Your task to perform on an android device: Clear the shopping cart on newegg.com. Add "logitech g pro" to the cart on newegg.com Image 0: 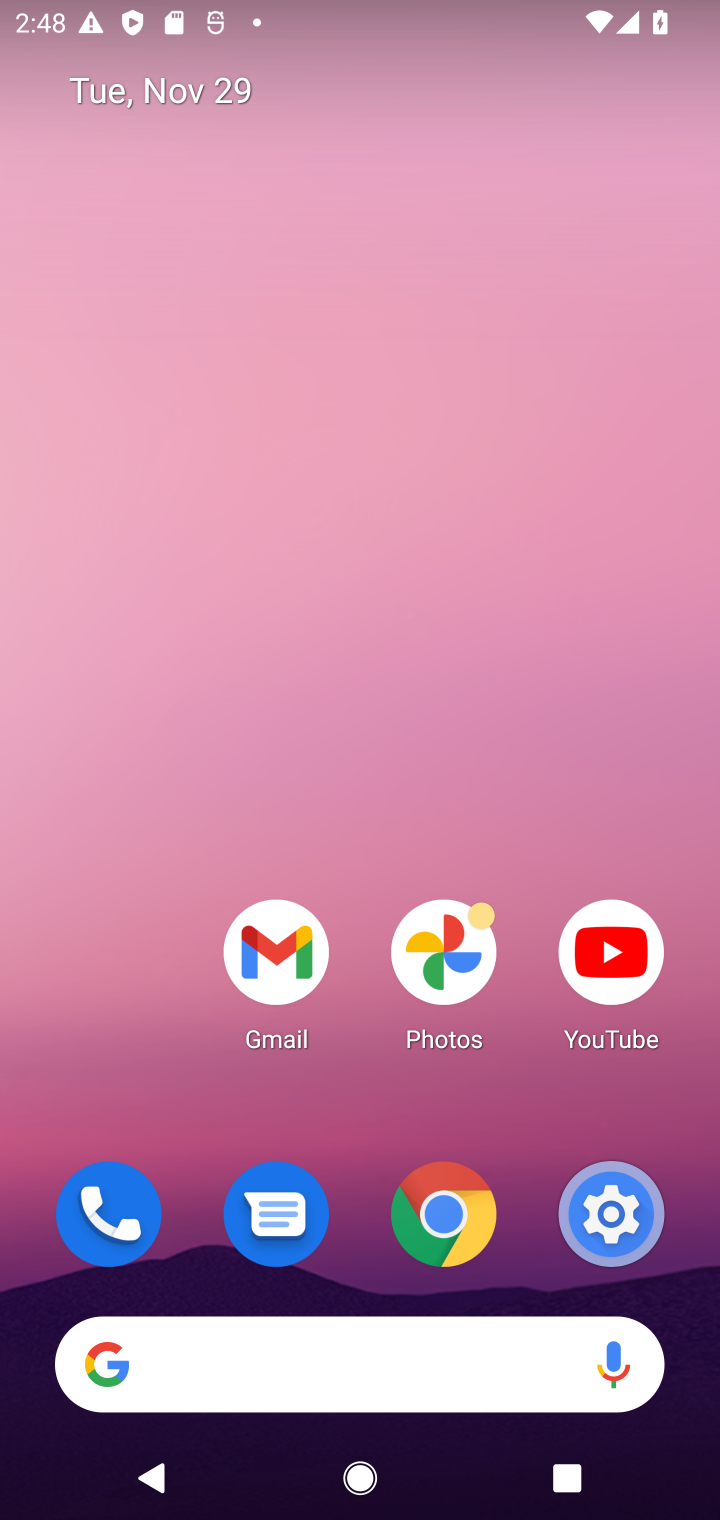
Step 0: click (462, 1349)
Your task to perform on an android device: Clear the shopping cart on newegg.com. Add "logitech g pro" to the cart on newegg.com Image 1: 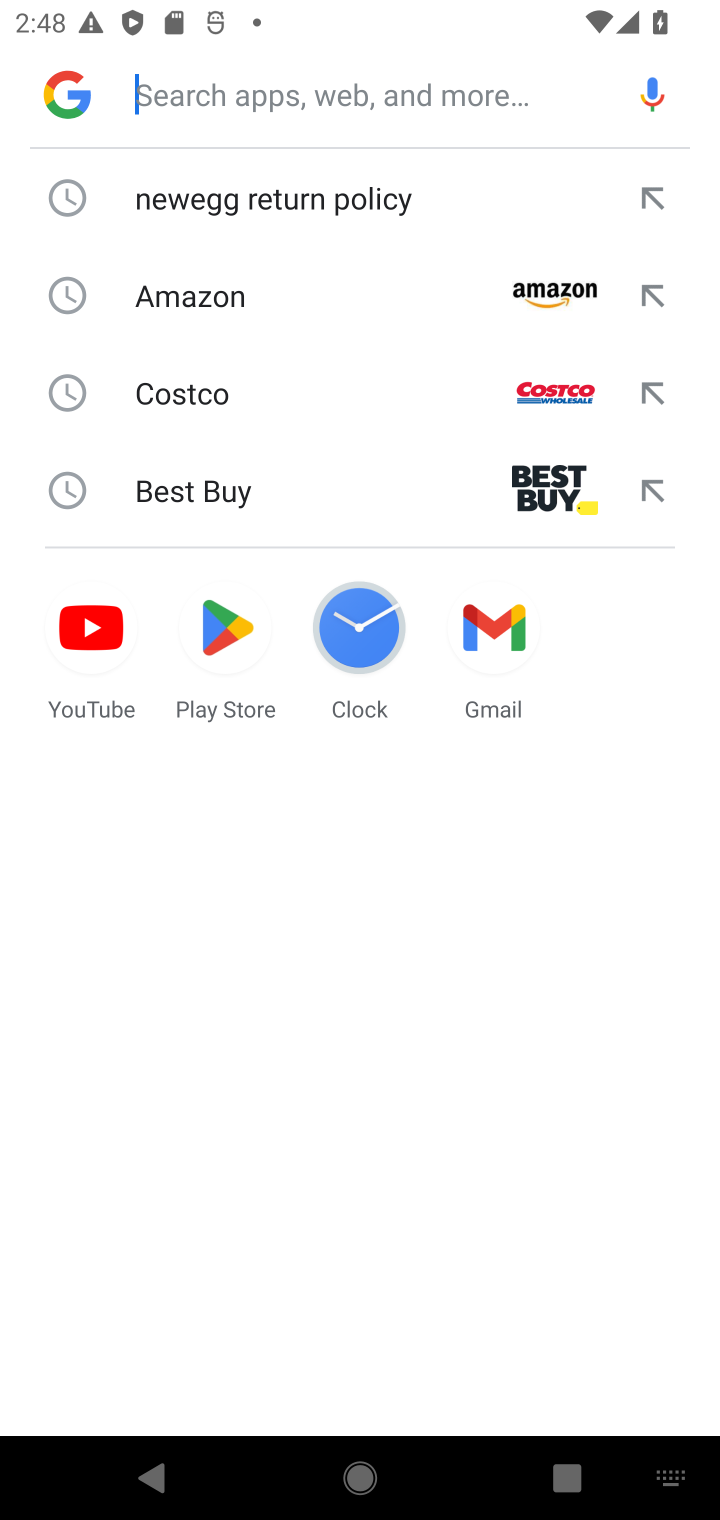
Step 1: type "NEWEGG."
Your task to perform on an android device: Clear the shopping cart on newegg.com. Add "logitech g pro" to the cart on newegg.com Image 2: 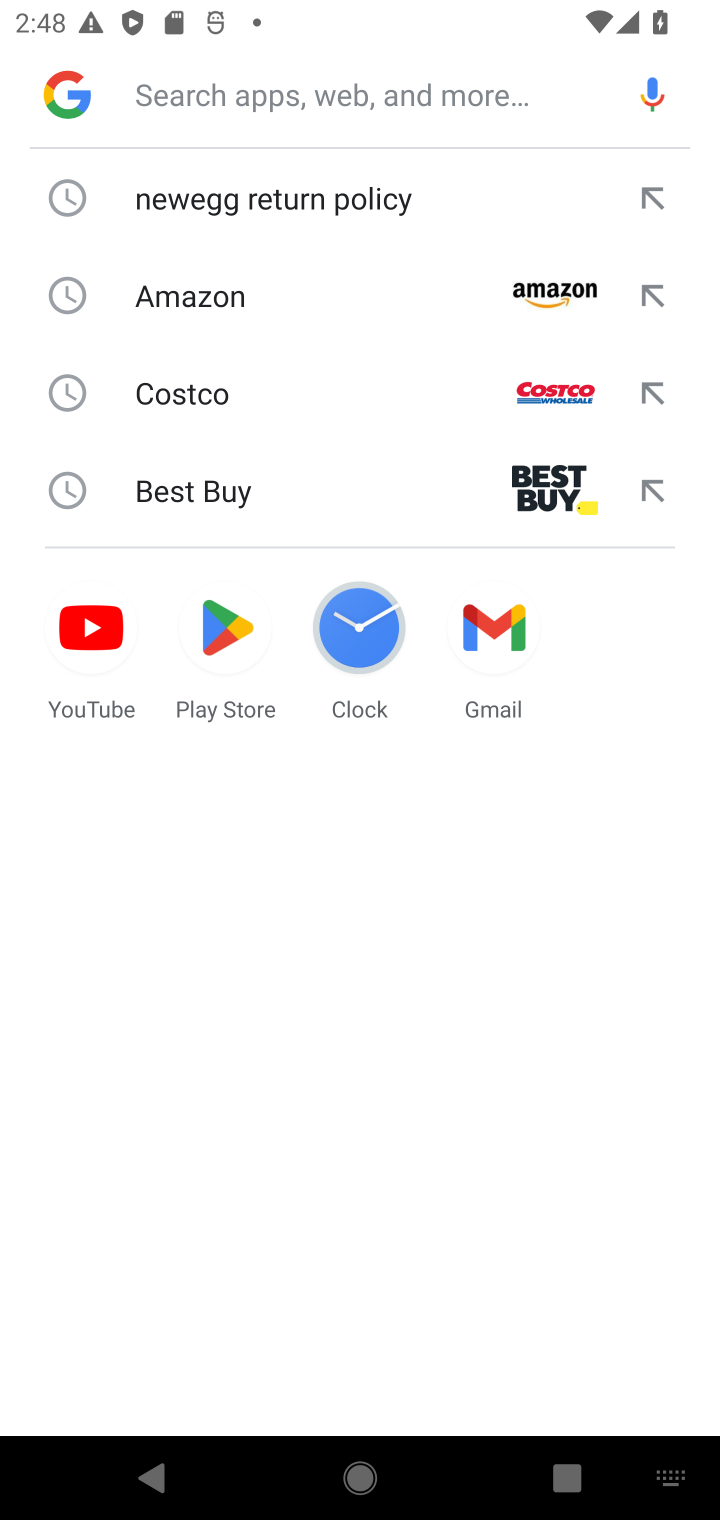
Step 2: click (248, 231)
Your task to perform on an android device: Clear the shopping cart on newegg.com. Add "logitech g pro" to the cart on newegg.com Image 3: 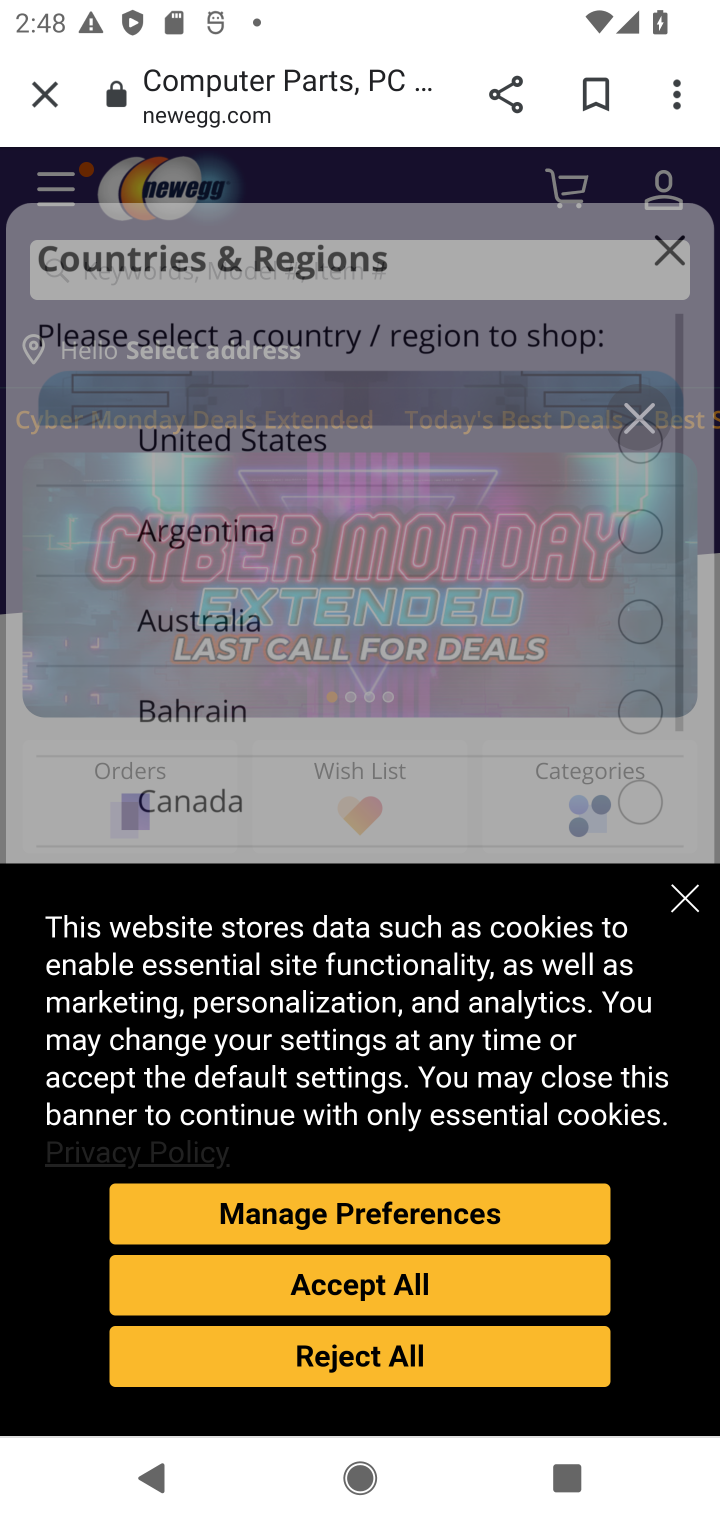
Step 3: click (692, 897)
Your task to perform on an android device: Clear the shopping cart on newegg.com. Add "logitech g pro" to the cart on newegg.com Image 4: 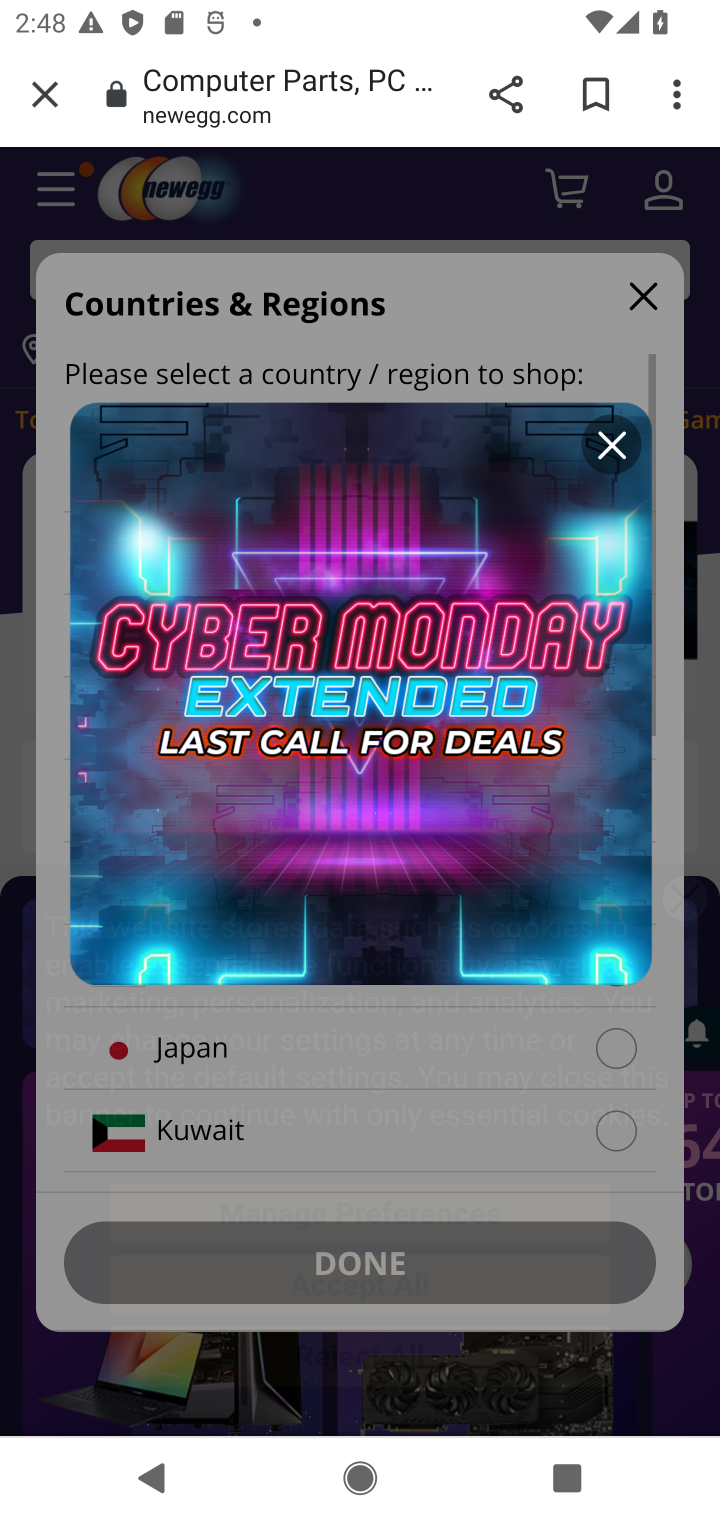
Step 4: click (642, 301)
Your task to perform on an android device: Clear the shopping cart on newegg.com. Add "logitech g pro" to the cart on newegg.com Image 5: 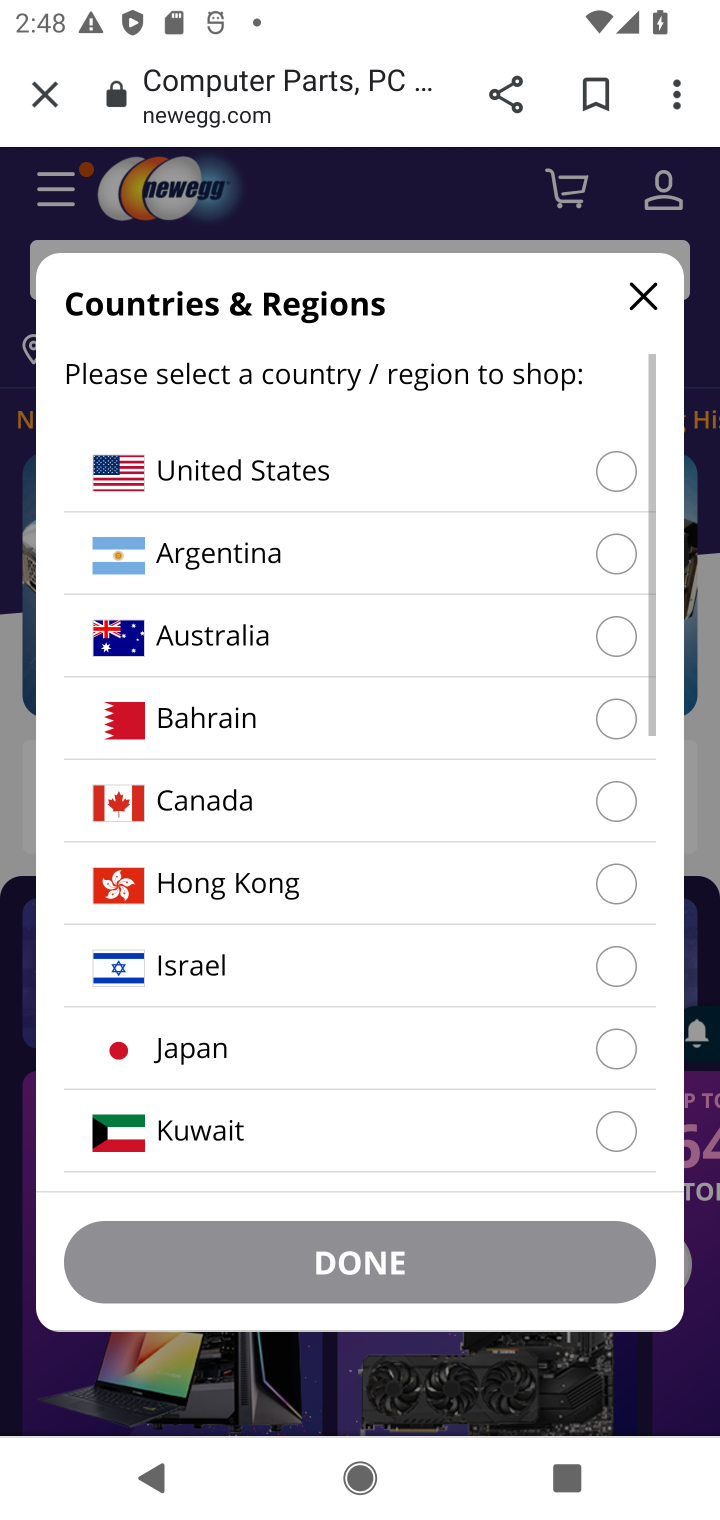
Step 5: click (632, 317)
Your task to perform on an android device: Clear the shopping cart on newegg.com. Add "logitech g pro" to the cart on newegg.com Image 6: 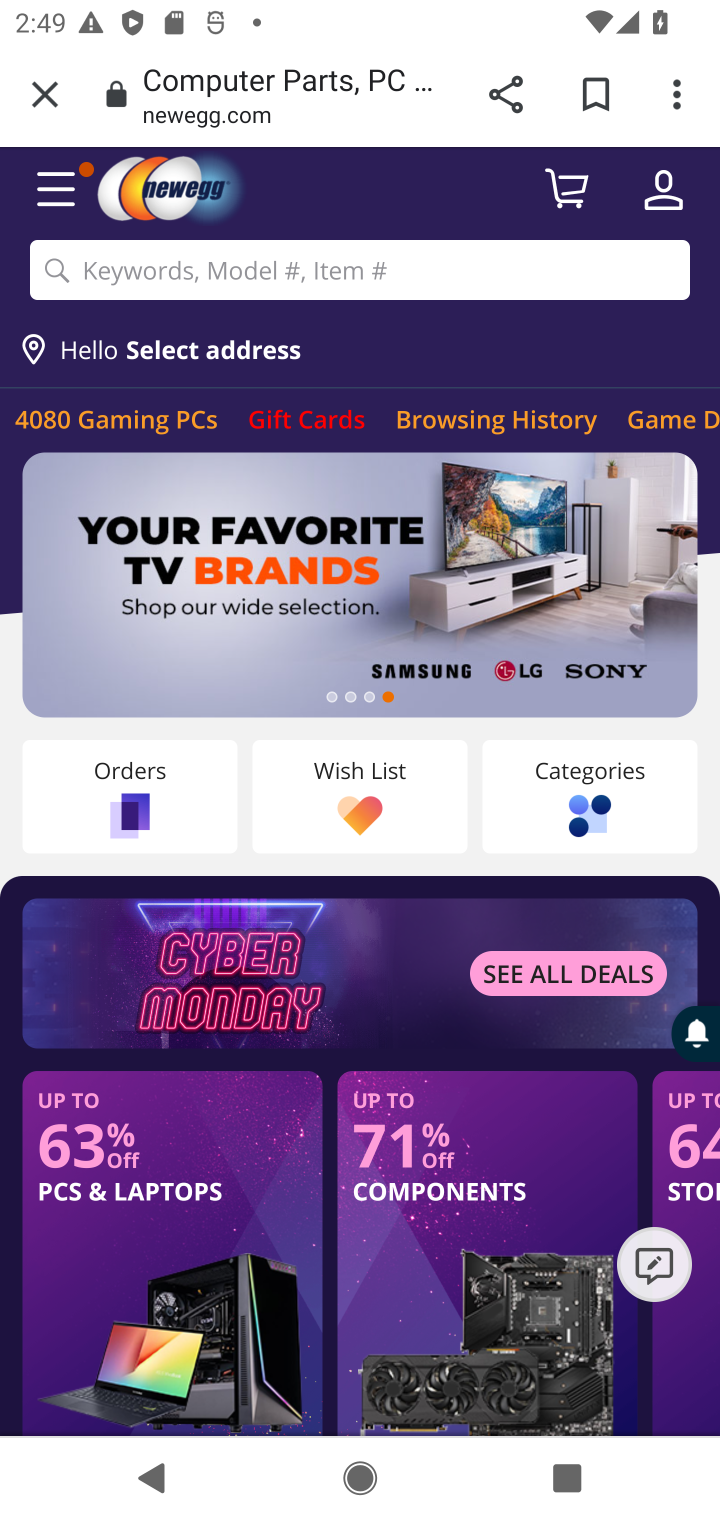
Step 6: task complete